Your task to perform on an android device: see sites visited before in the chrome app Image 0: 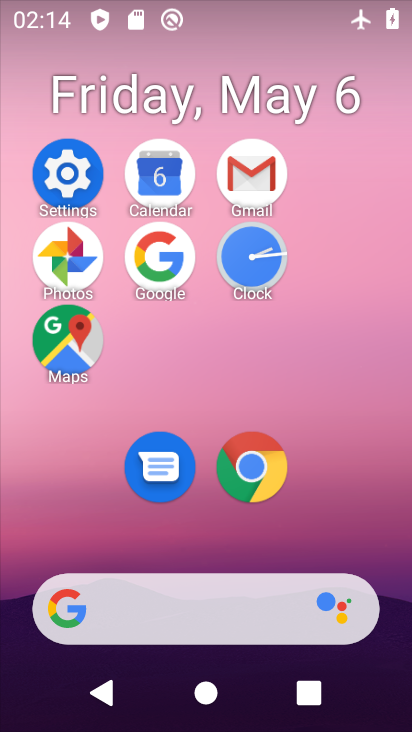
Step 0: click (268, 456)
Your task to perform on an android device: see sites visited before in the chrome app Image 1: 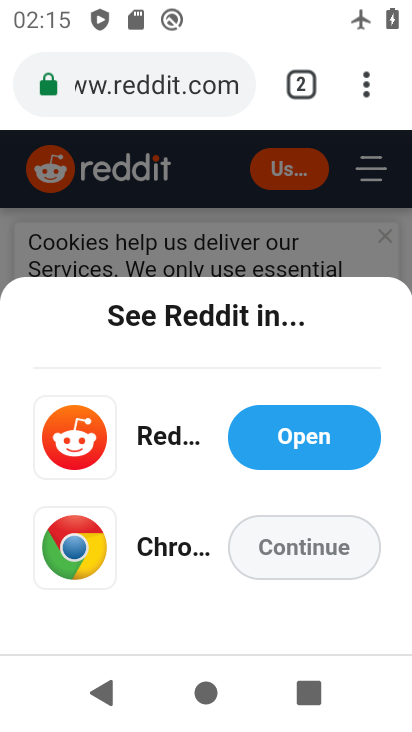
Step 1: click (372, 84)
Your task to perform on an android device: see sites visited before in the chrome app Image 2: 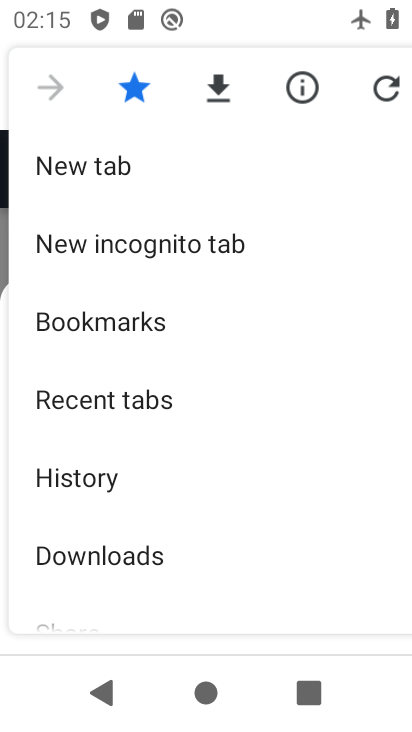
Step 2: click (130, 398)
Your task to perform on an android device: see sites visited before in the chrome app Image 3: 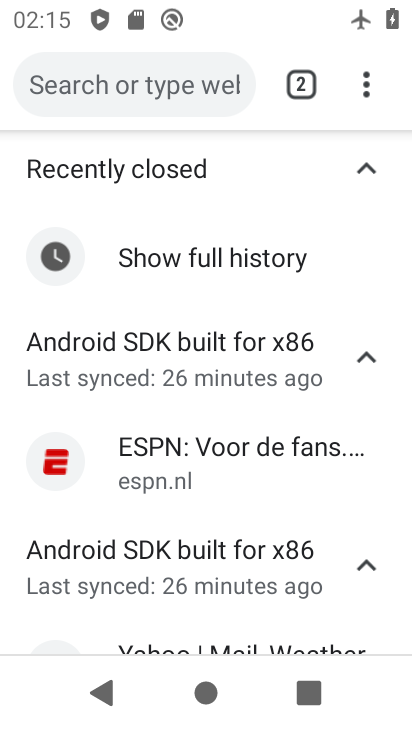
Step 3: task complete